Your task to perform on an android device: turn on translation in the chrome app Image 0: 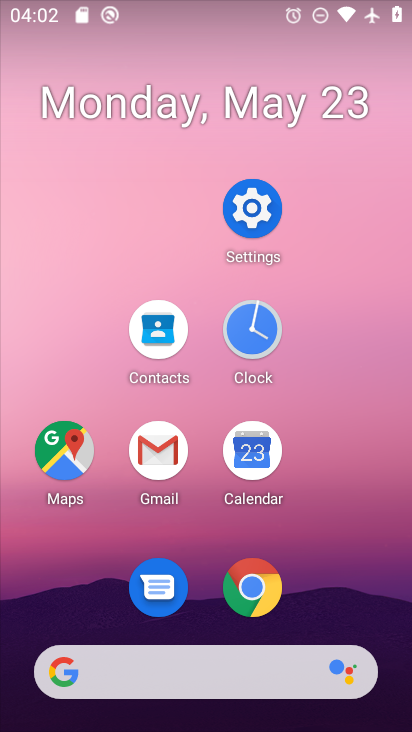
Step 0: drag from (362, 615) to (404, 115)
Your task to perform on an android device: turn on translation in the chrome app Image 1: 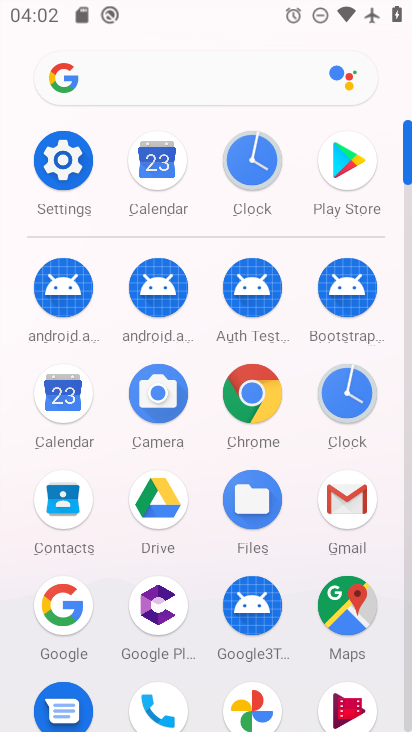
Step 1: click (259, 408)
Your task to perform on an android device: turn on translation in the chrome app Image 2: 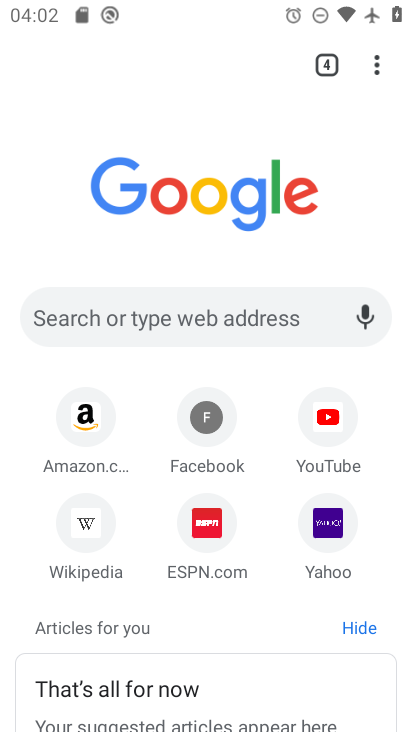
Step 2: click (382, 85)
Your task to perform on an android device: turn on translation in the chrome app Image 3: 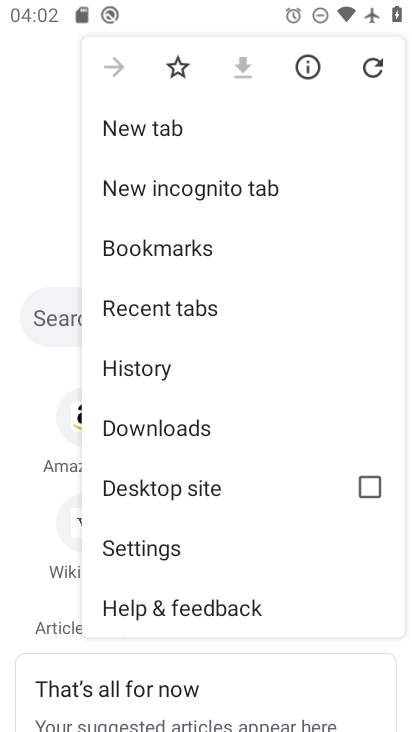
Step 3: click (200, 546)
Your task to perform on an android device: turn on translation in the chrome app Image 4: 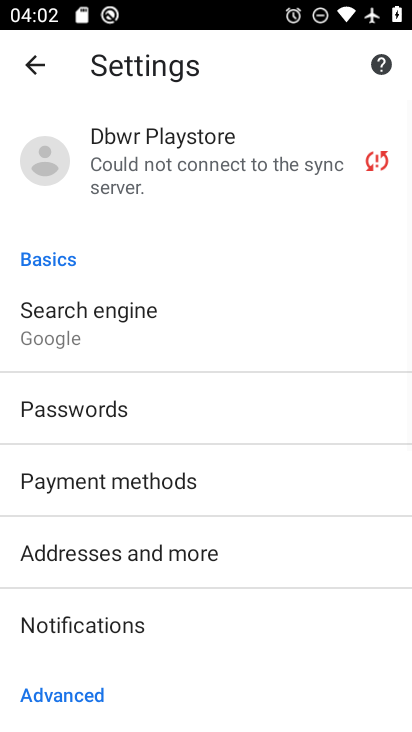
Step 4: drag from (203, 655) to (273, 108)
Your task to perform on an android device: turn on translation in the chrome app Image 5: 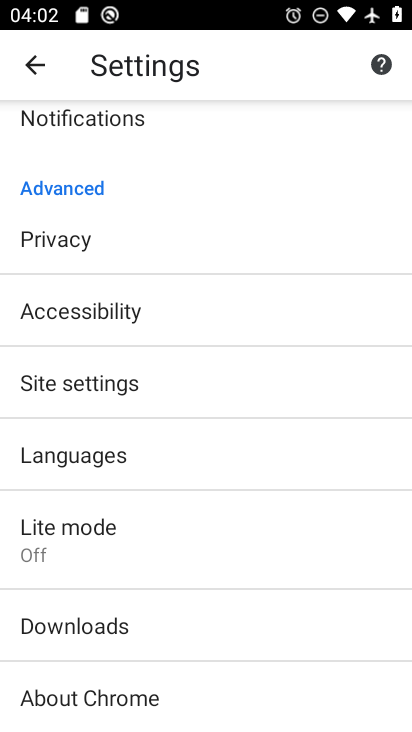
Step 5: click (203, 459)
Your task to perform on an android device: turn on translation in the chrome app Image 6: 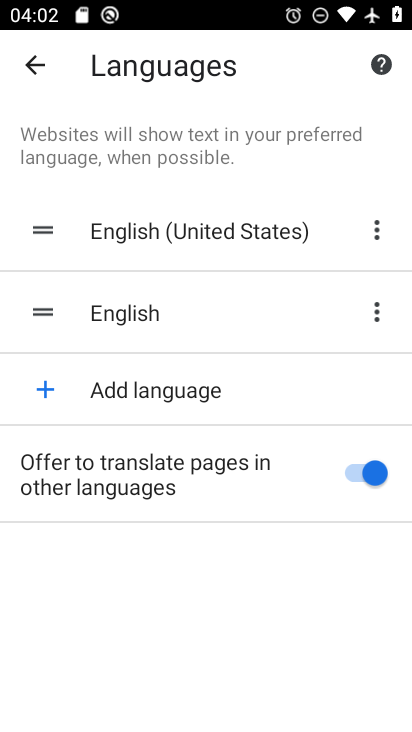
Step 6: task complete